Your task to perform on an android device: Open settings on Google Maps Image 0: 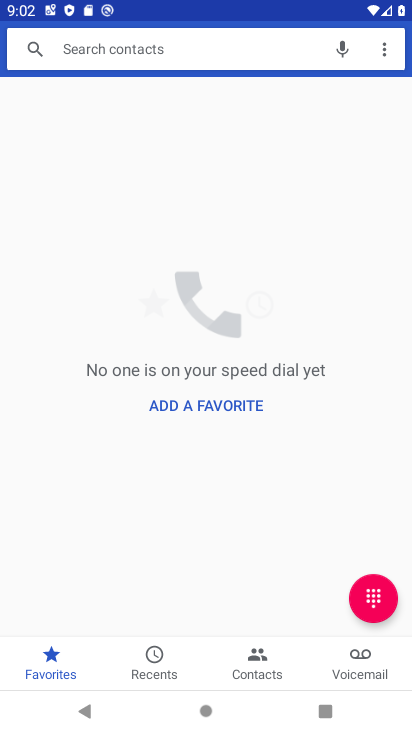
Step 0: press home button
Your task to perform on an android device: Open settings on Google Maps Image 1: 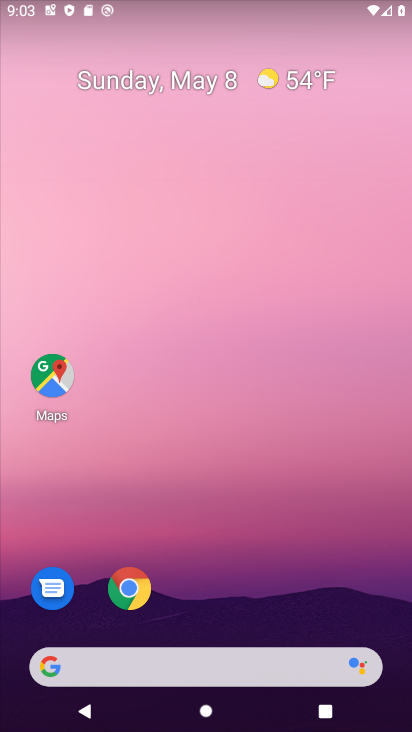
Step 1: click (43, 386)
Your task to perform on an android device: Open settings on Google Maps Image 2: 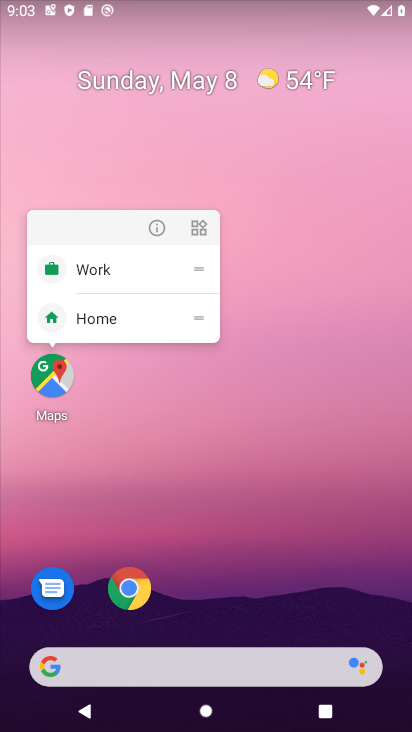
Step 2: click (163, 233)
Your task to perform on an android device: Open settings on Google Maps Image 3: 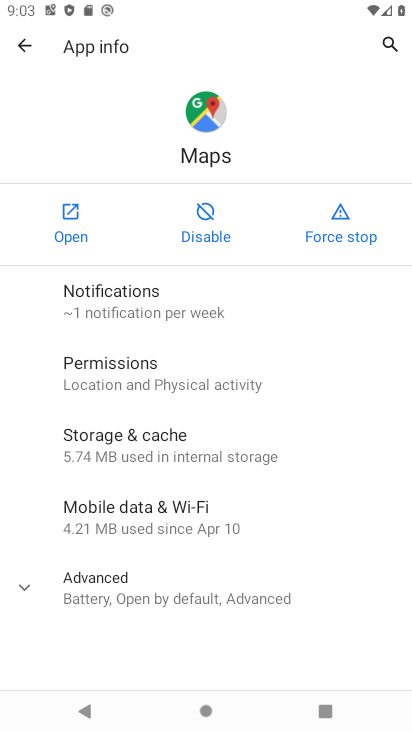
Step 3: click (74, 202)
Your task to perform on an android device: Open settings on Google Maps Image 4: 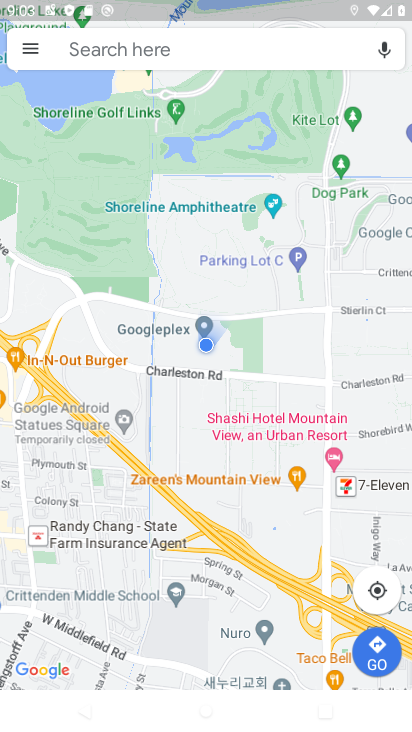
Step 4: click (24, 45)
Your task to perform on an android device: Open settings on Google Maps Image 5: 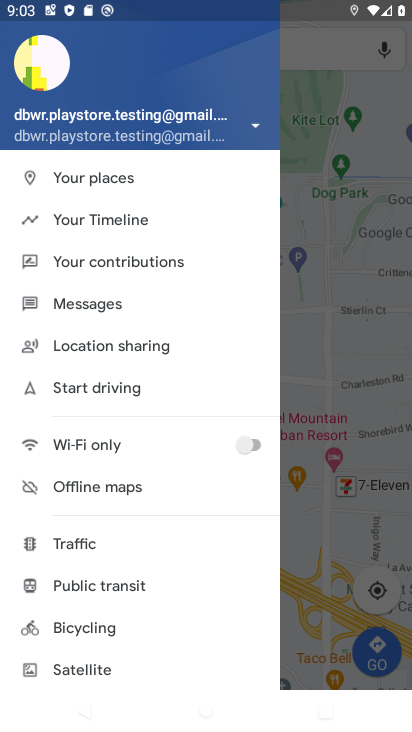
Step 5: drag from (75, 653) to (219, 174)
Your task to perform on an android device: Open settings on Google Maps Image 6: 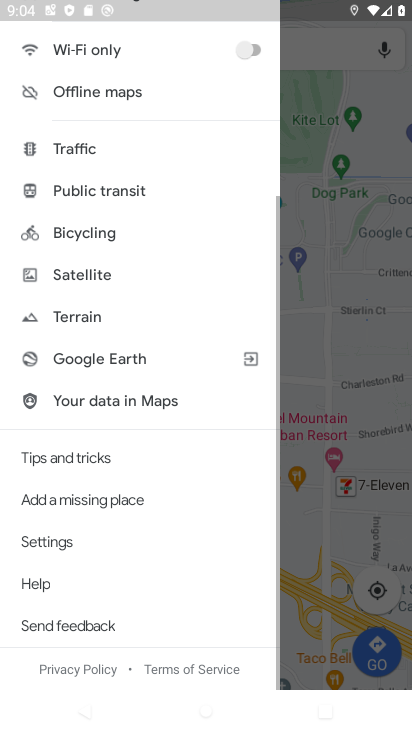
Step 6: click (114, 534)
Your task to perform on an android device: Open settings on Google Maps Image 7: 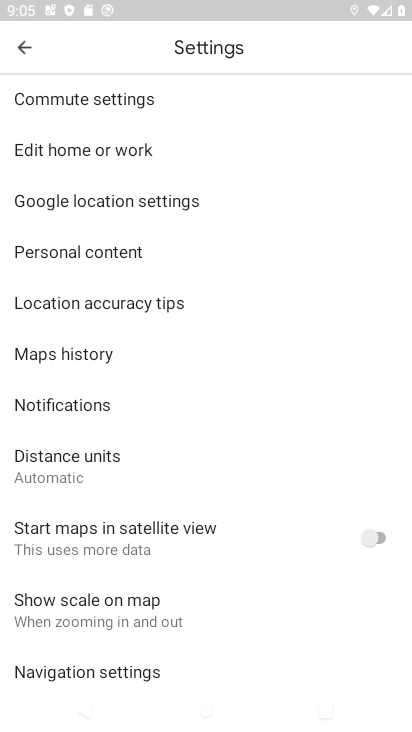
Step 7: task complete